Your task to perform on an android device: make emails show in primary in the gmail app Image 0: 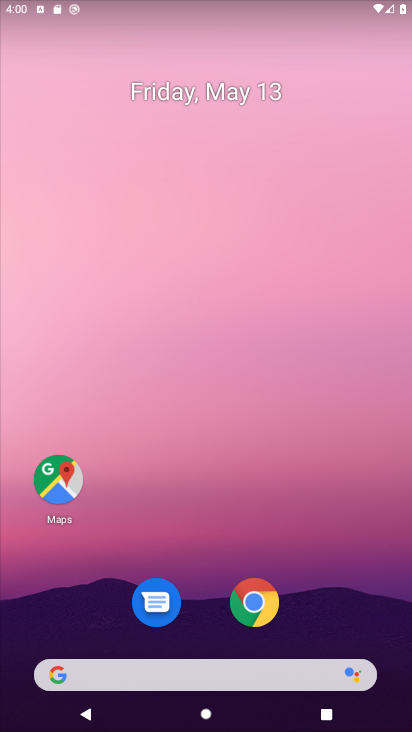
Step 0: drag from (159, 622) to (159, 206)
Your task to perform on an android device: make emails show in primary in the gmail app Image 1: 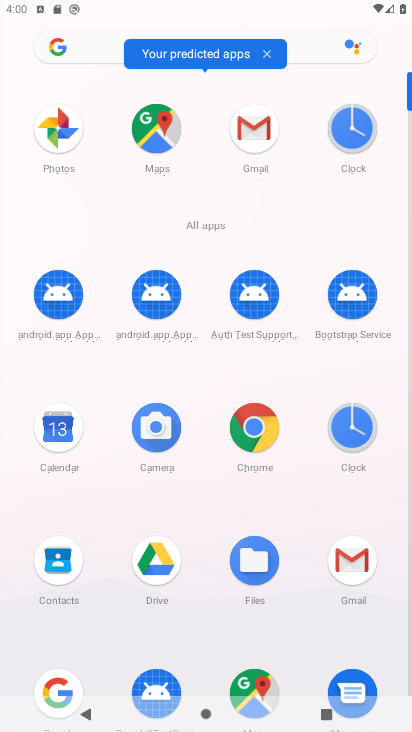
Step 1: click (254, 139)
Your task to perform on an android device: make emails show in primary in the gmail app Image 2: 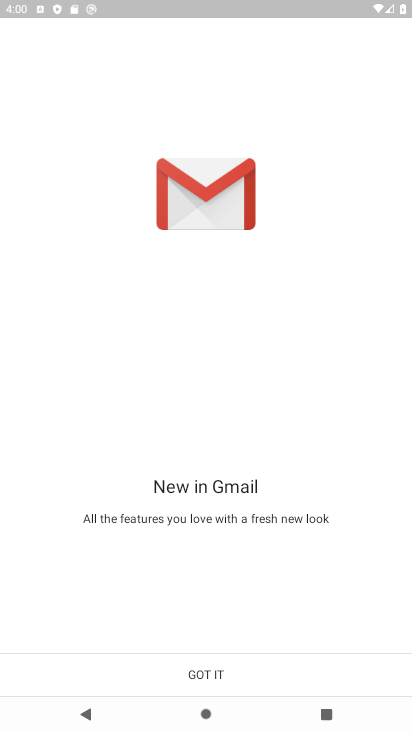
Step 2: click (201, 663)
Your task to perform on an android device: make emails show in primary in the gmail app Image 3: 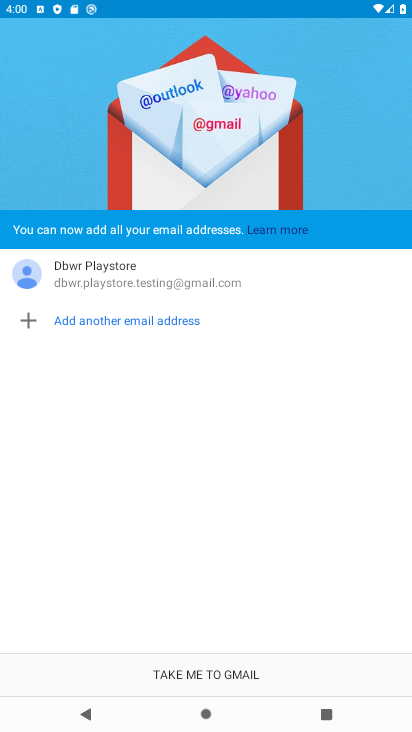
Step 3: click (208, 676)
Your task to perform on an android device: make emails show in primary in the gmail app Image 4: 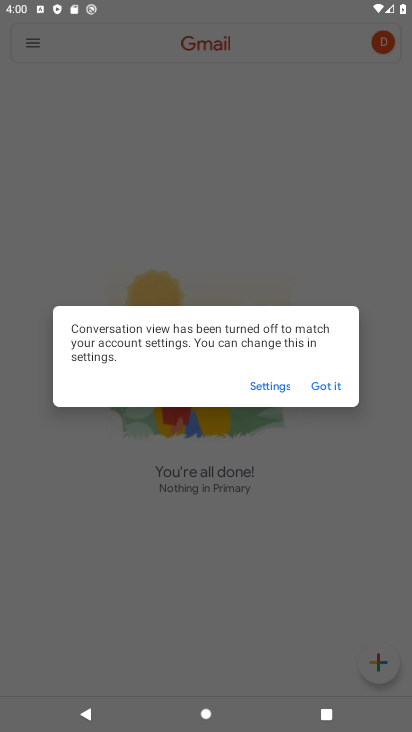
Step 4: click (322, 386)
Your task to perform on an android device: make emails show in primary in the gmail app Image 5: 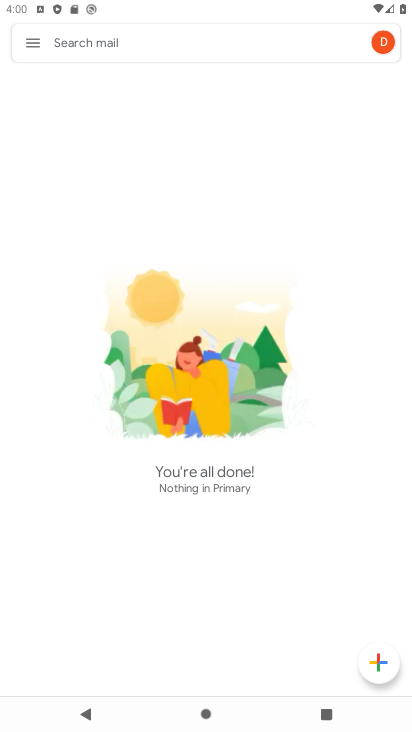
Step 5: click (31, 40)
Your task to perform on an android device: make emails show in primary in the gmail app Image 6: 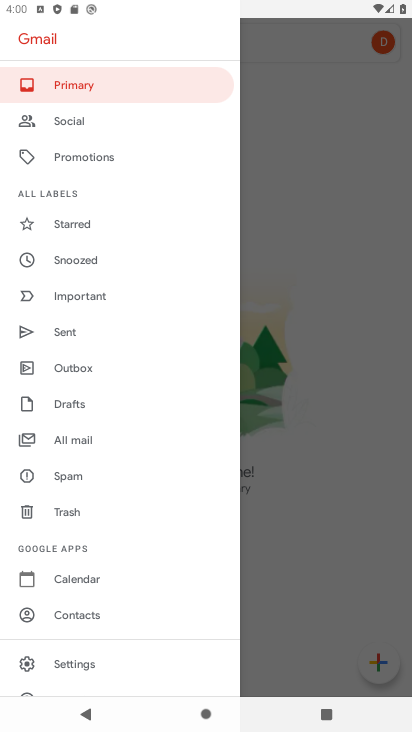
Step 6: task complete